Your task to perform on an android device: Search for vegetarian restaurants on Maps Image 0: 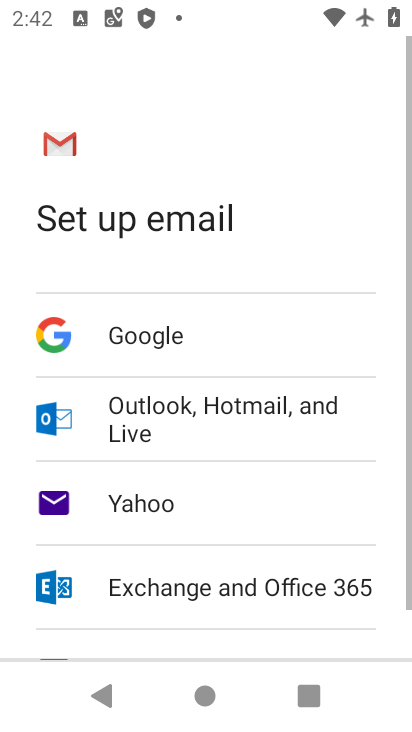
Step 0: press home button
Your task to perform on an android device: Search for vegetarian restaurants on Maps Image 1: 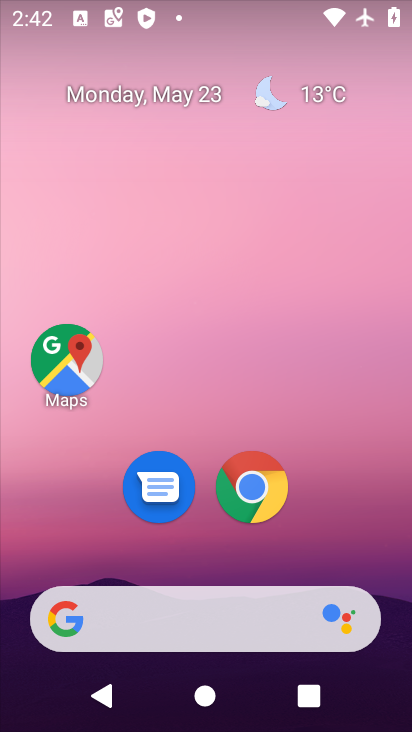
Step 1: click (69, 362)
Your task to perform on an android device: Search for vegetarian restaurants on Maps Image 2: 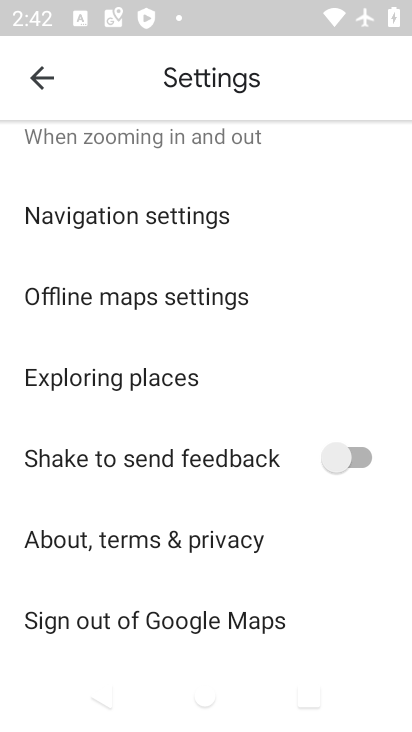
Step 2: press back button
Your task to perform on an android device: Search for vegetarian restaurants on Maps Image 3: 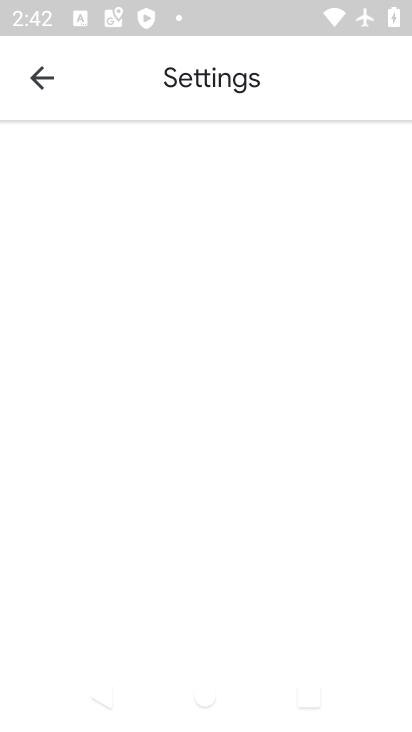
Step 3: press back button
Your task to perform on an android device: Search for vegetarian restaurants on Maps Image 4: 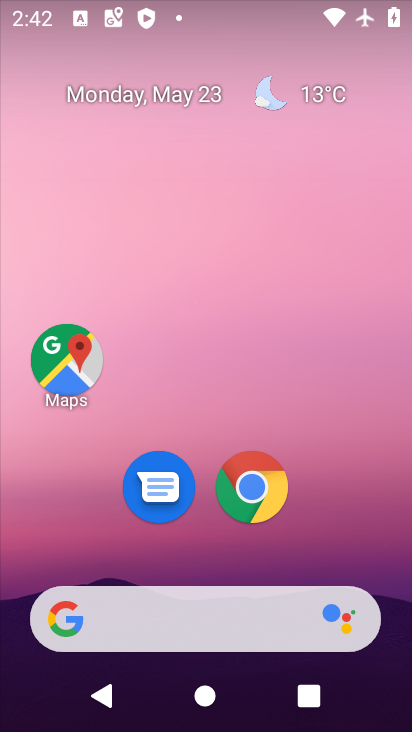
Step 4: click (72, 359)
Your task to perform on an android device: Search for vegetarian restaurants on Maps Image 5: 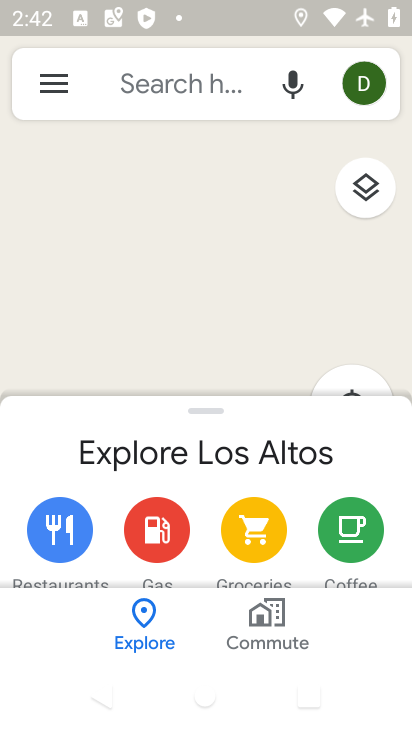
Step 5: click (145, 76)
Your task to perform on an android device: Search for vegetarian restaurants on Maps Image 6: 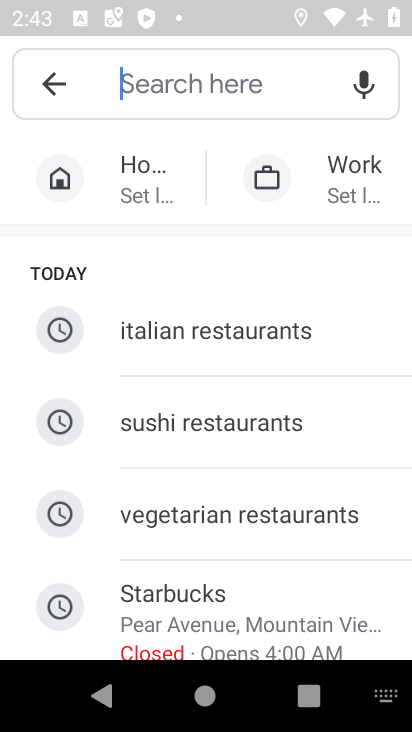
Step 6: type "vegetarian restaurants"
Your task to perform on an android device: Search for vegetarian restaurants on Maps Image 7: 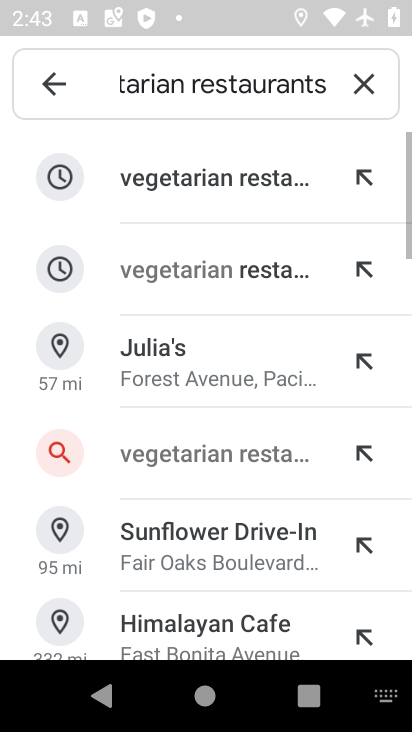
Step 7: click (185, 186)
Your task to perform on an android device: Search for vegetarian restaurants on Maps Image 8: 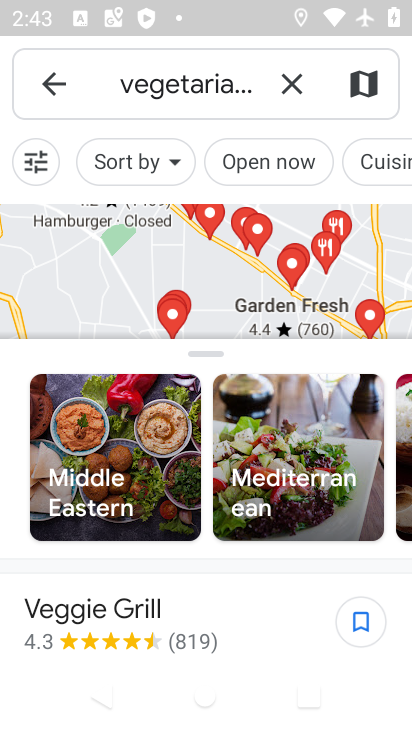
Step 8: task complete